Your task to perform on an android device: Go to internet settings Image 0: 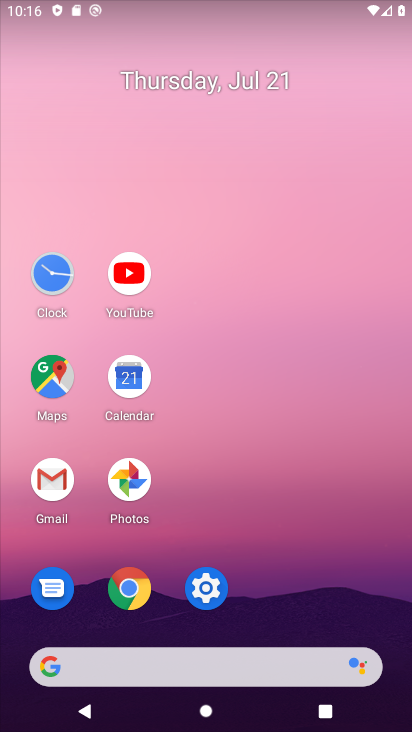
Step 0: click (201, 593)
Your task to perform on an android device: Go to internet settings Image 1: 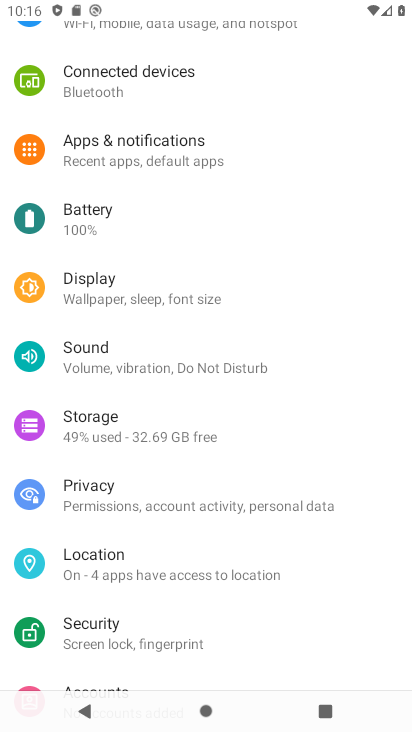
Step 1: drag from (271, 181) to (374, 640)
Your task to perform on an android device: Go to internet settings Image 2: 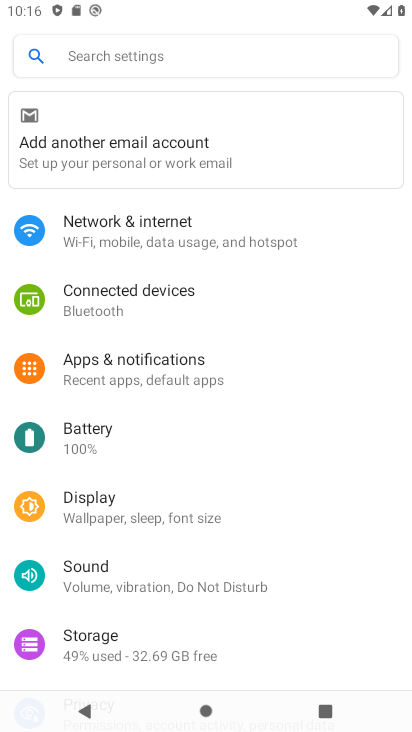
Step 2: click (136, 231)
Your task to perform on an android device: Go to internet settings Image 3: 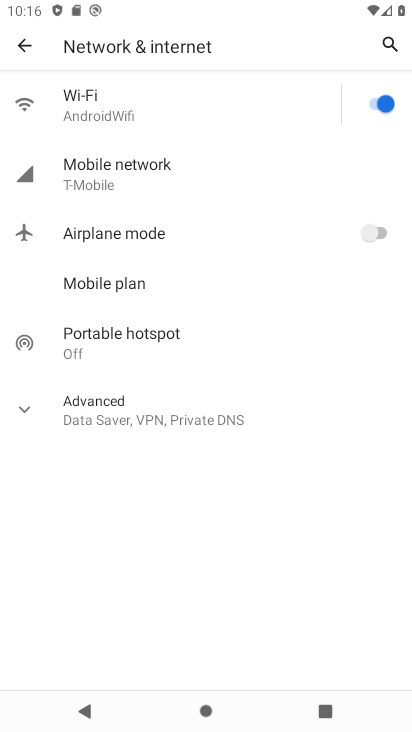
Step 3: click (137, 173)
Your task to perform on an android device: Go to internet settings Image 4: 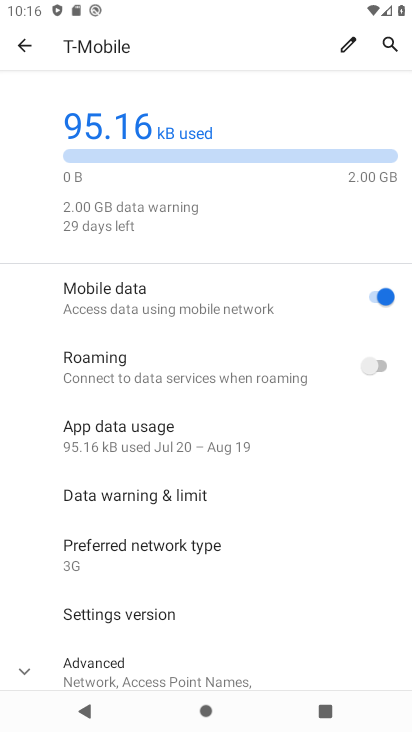
Step 4: task complete